Your task to perform on an android device: turn off data saver in the chrome app Image 0: 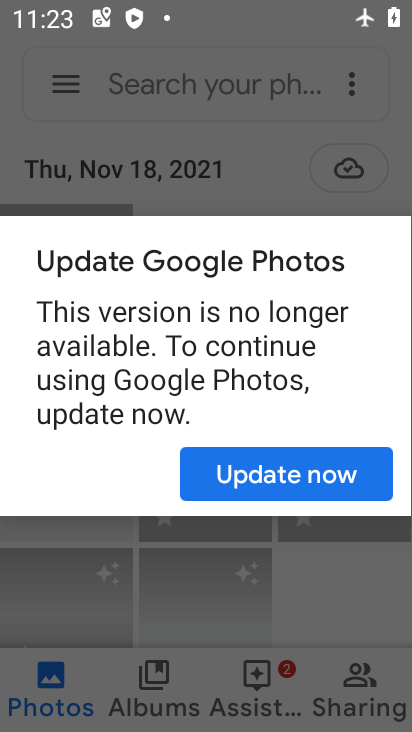
Step 0: press home button
Your task to perform on an android device: turn off data saver in the chrome app Image 1: 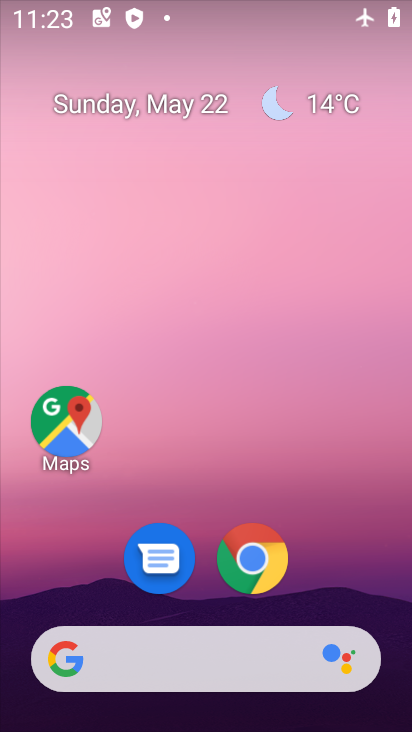
Step 1: click (263, 557)
Your task to perform on an android device: turn off data saver in the chrome app Image 2: 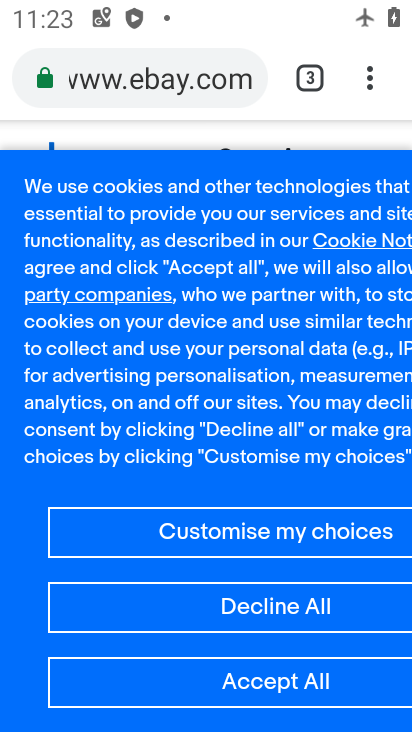
Step 2: click (372, 80)
Your task to perform on an android device: turn off data saver in the chrome app Image 3: 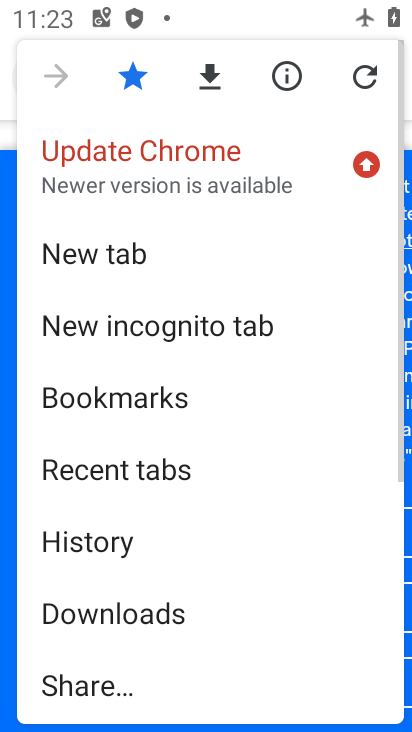
Step 3: drag from (153, 501) to (209, 145)
Your task to perform on an android device: turn off data saver in the chrome app Image 4: 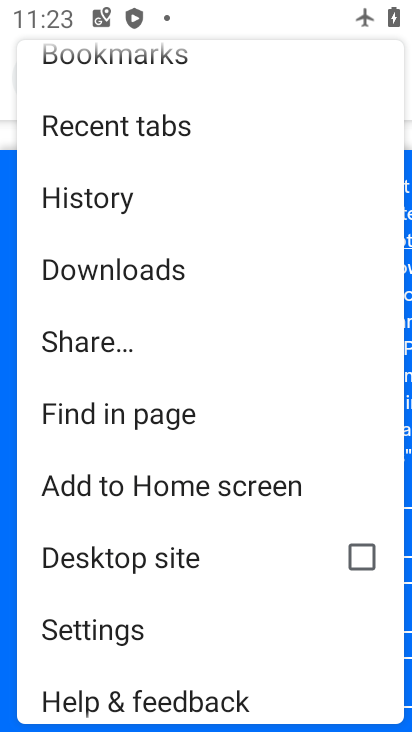
Step 4: drag from (111, 536) to (170, 246)
Your task to perform on an android device: turn off data saver in the chrome app Image 5: 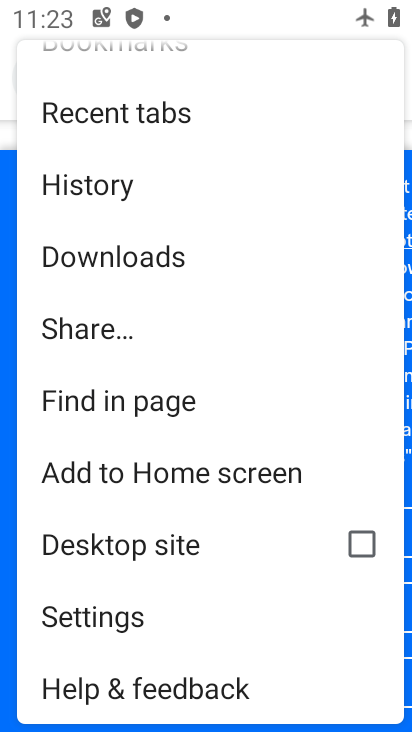
Step 5: click (100, 618)
Your task to perform on an android device: turn off data saver in the chrome app Image 6: 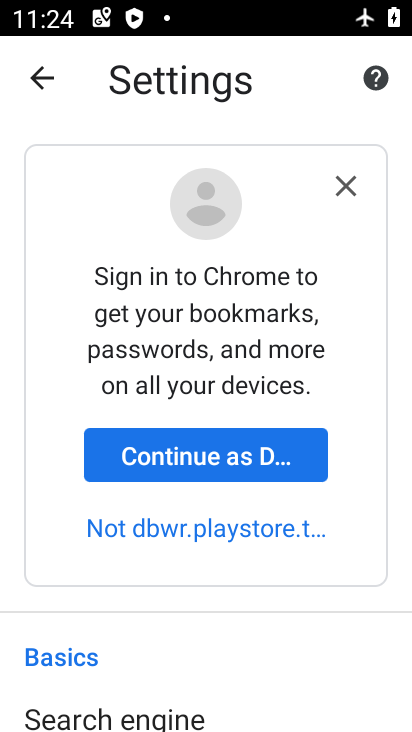
Step 6: drag from (166, 615) to (190, 170)
Your task to perform on an android device: turn off data saver in the chrome app Image 7: 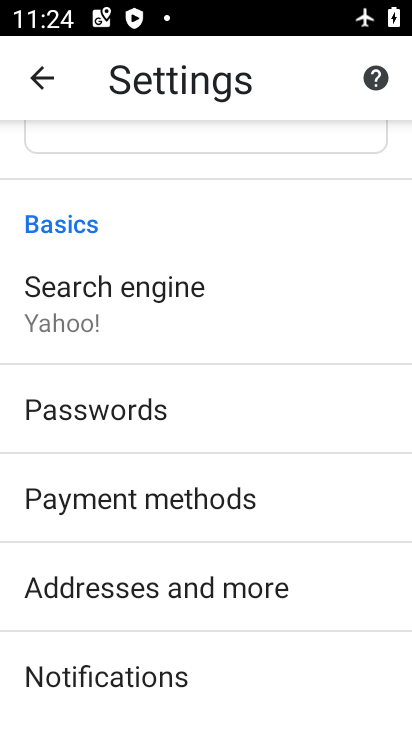
Step 7: drag from (156, 570) to (211, 167)
Your task to perform on an android device: turn off data saver in the chrome app Image 8: 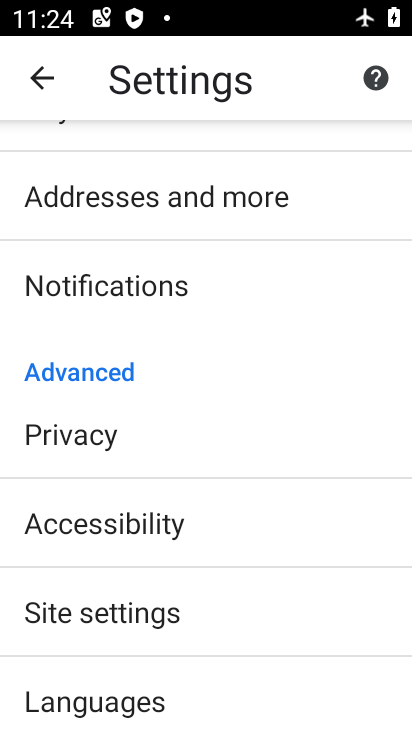
Step 8: drag from (187, 556) to (220, 210)
Your task to perform on an android device: turn off data saver in the chrome app Image 9: 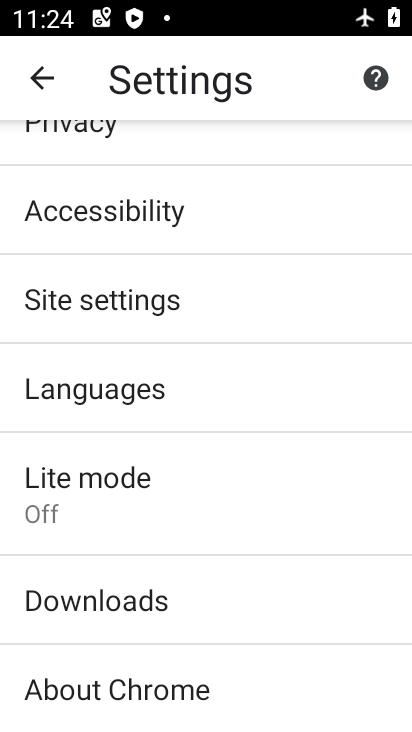
Step 9: click (90, 483)
Your task to perform on an android device: turn off data saver in the chrome app Image 10: 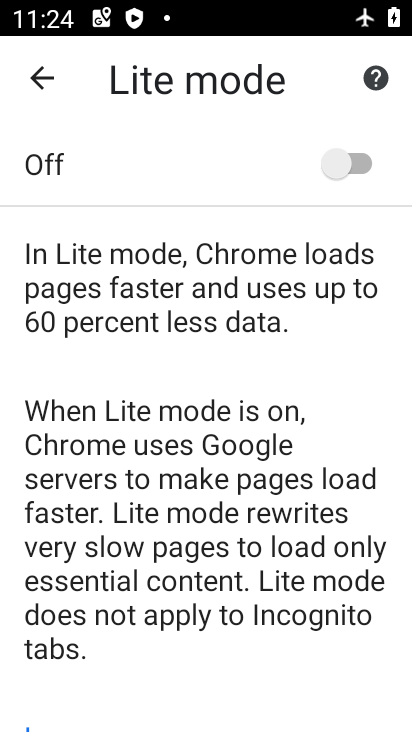
Step 10: task complete